Your task to perform on an android device: clear all cookies in the chrome app Image 0: 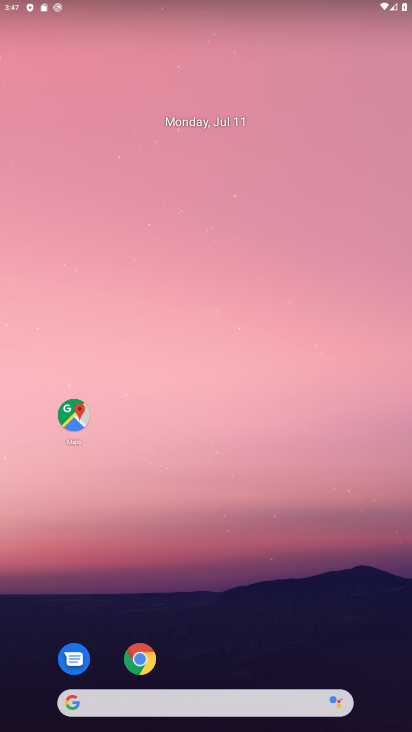
Step 0: click (138, 660)
Your task to perform on an android device: clear all cookies in the chrome app Image 1: 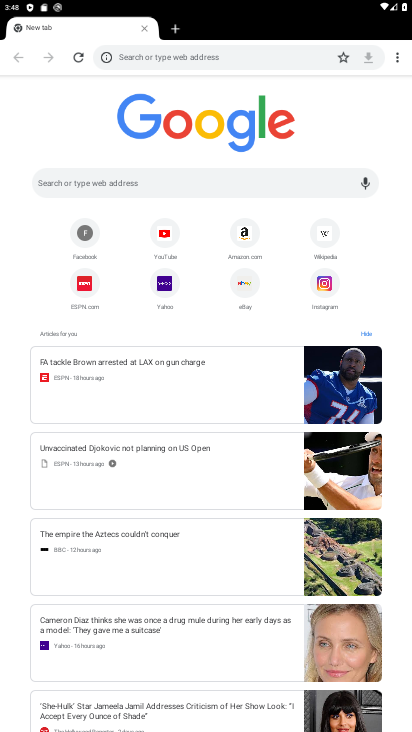
Step 1: click (394, 55)
Your task to perform on an android device: clear all cookies in the chrome app Image 2: 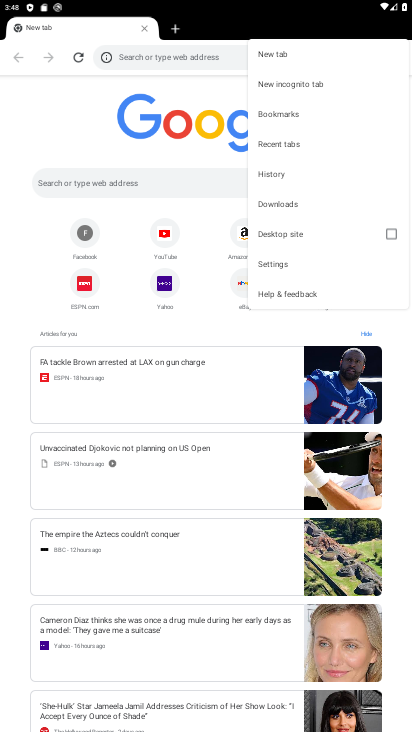
Step 2: click (269, 263)
Your task to perform on an android device: clear all cookies in the chrome app Image 3: 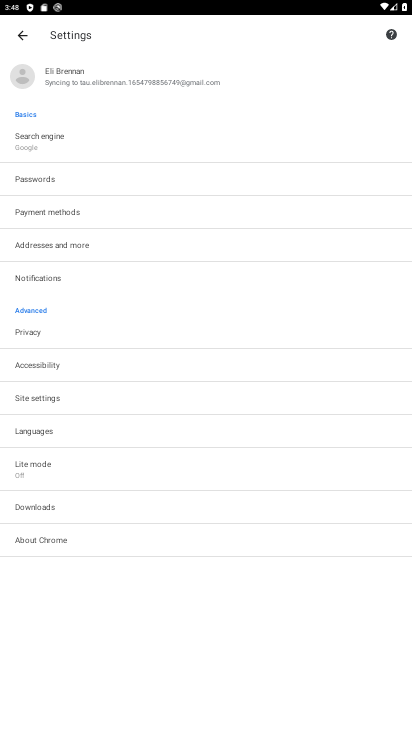
Step 3: click (58, 397)
Your task to perform on an android device: clear all cookies in the chrome app Image 4: 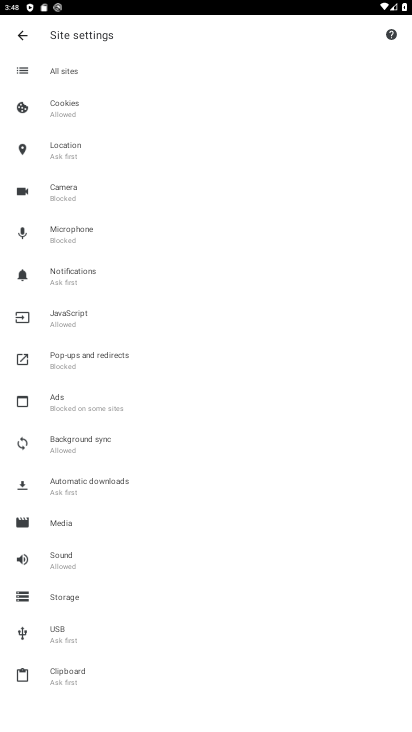
Step 4: press back button
Your task to perform on an android device: clear all cookies in the chrome app Image 5: 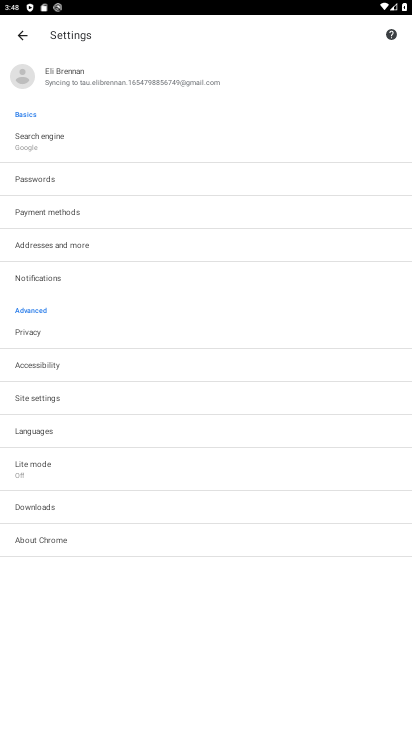
Step 5: press back button
Your task to perform on an android device: clear all cookies in the chrome app Image 6: 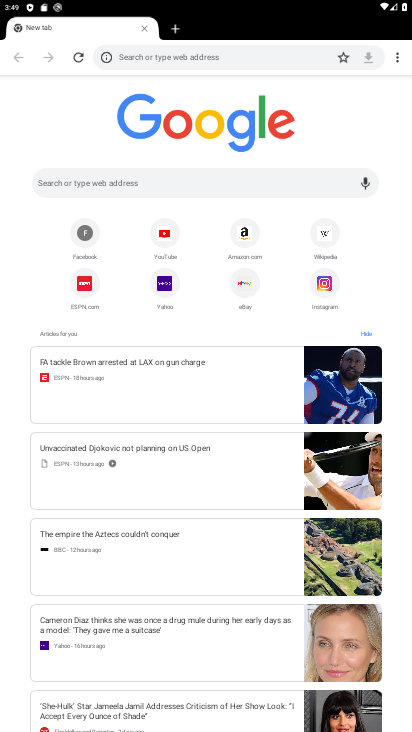
Step 6: click (399, 58)
Your task to perform on an android device: clear all cookies in the chrome app Image 7: 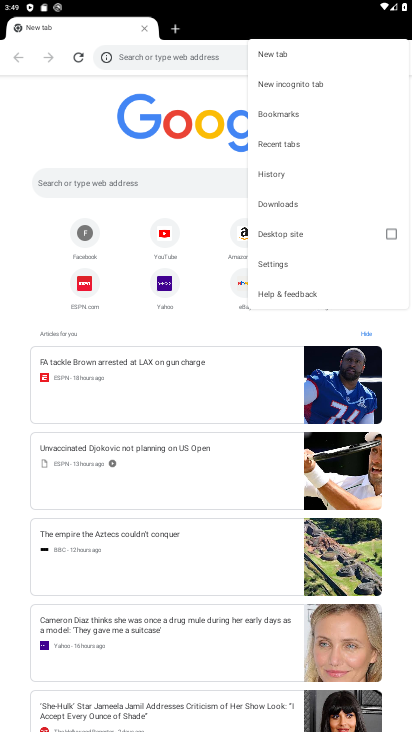
Step 7: click (300, 181)
Your task to perform on an android device: clear all cookies in the chrome app Image 8: 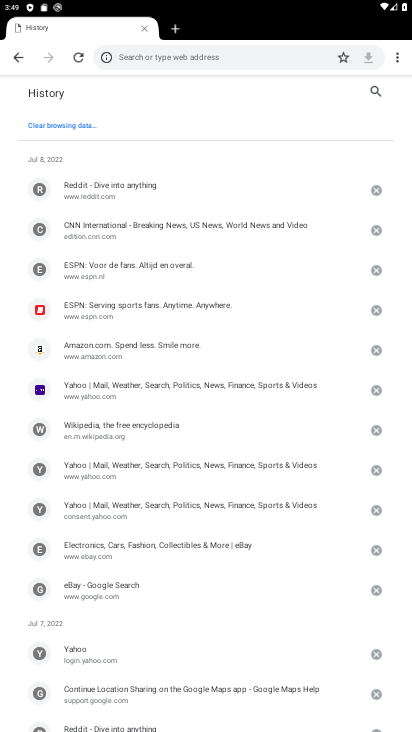
Step 8: click (72, 125)
Your task to perform on an android device: clear all cookies in the chrome app Image 9: 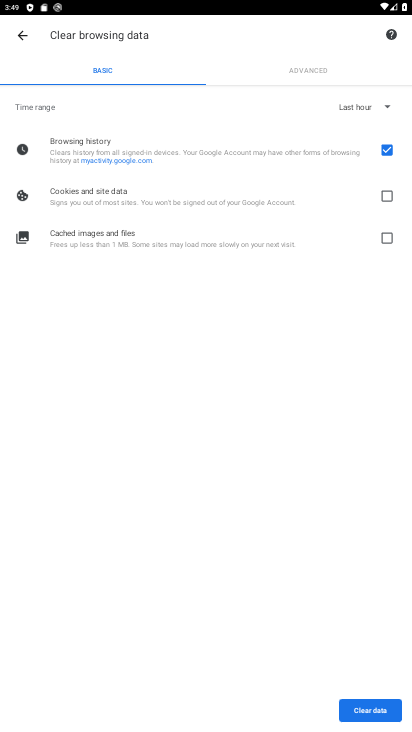
Step 9: click (384, 150)
Your task to perform on an android device: clear all cookies in the chrome app Image 10: 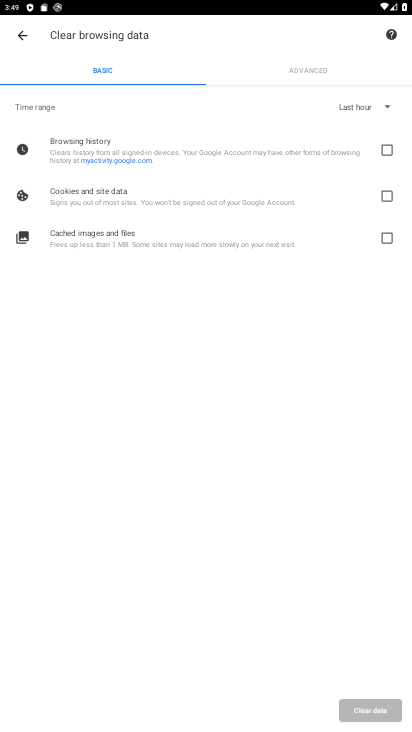
Step 10: click (384, 196)
Your task to perform on an android device: clear all cookies in the chrome app Image 11: 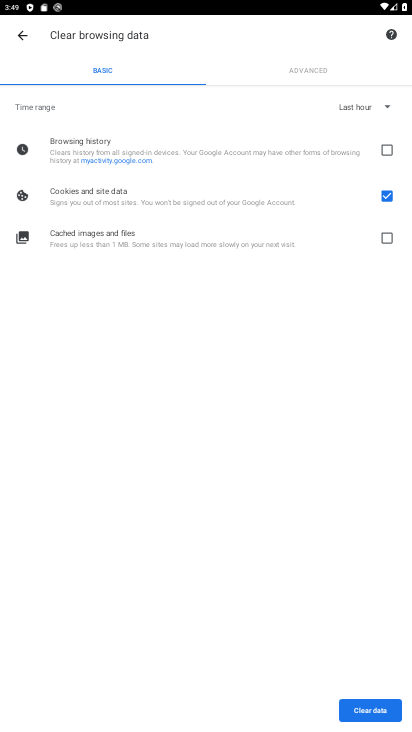
Step 11: click (345, 710)
Your task to perform on an android device: clear all cookies in the chrome app Image 12: 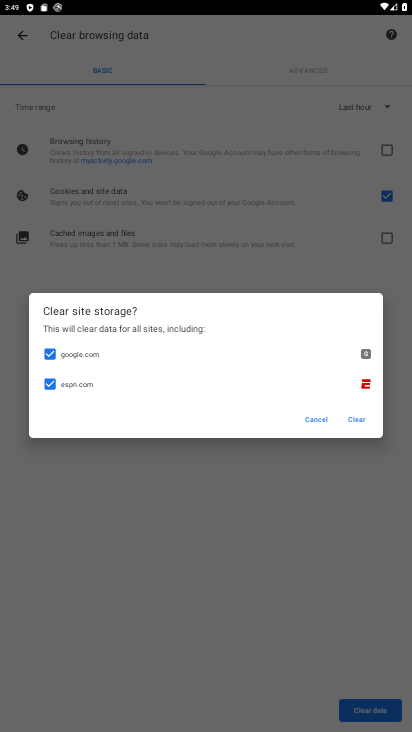
Step 12: click (351, 421)
Your task to perform on an android device: clear all cookies in the chrome app Image 13: 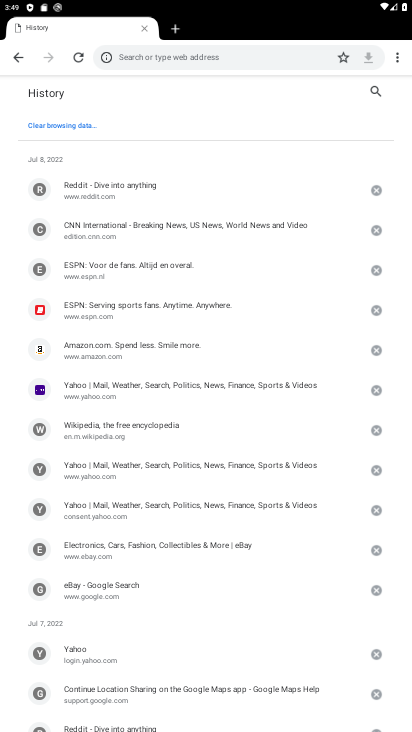
Step 13: task complete